Your task to perform on an android device: turn pop-ups on in chrome Image 0: 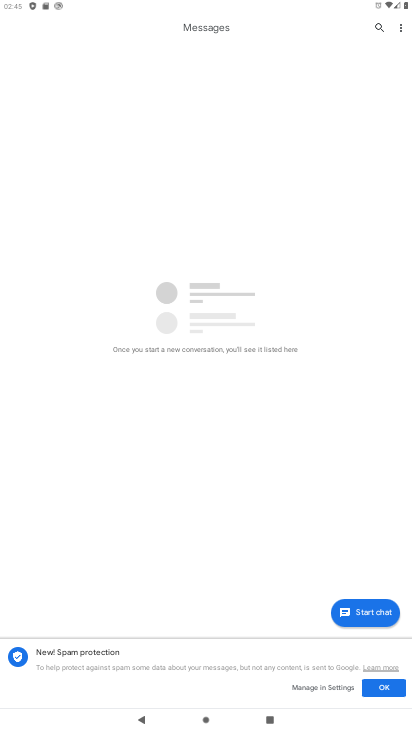
Step 0: press home button
Your task to perform on an android device: turn pop-ups on in chrome Image 1: 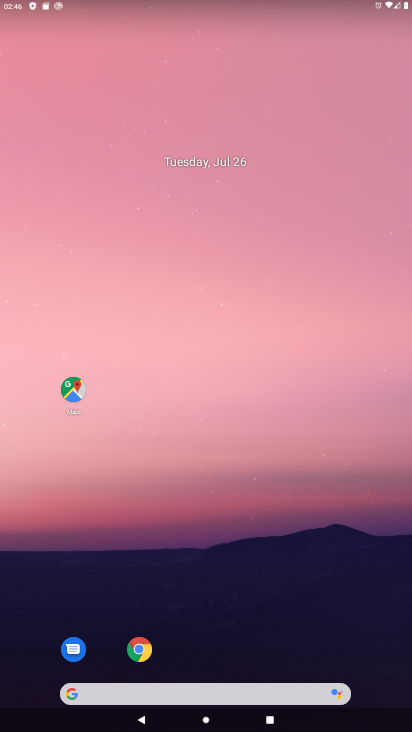
Step 1: click (139, 648)
Your task to perform on an android device: turn pop-ups on in chrome Image 2: 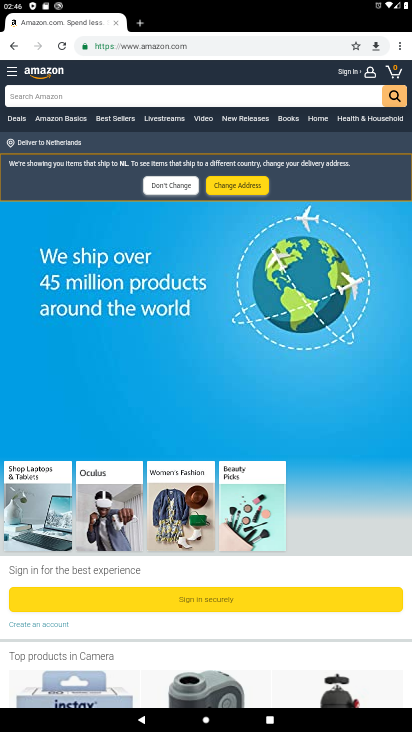
Step 2: click (401, 44)
Your task to perform on an android device: turn pop-ups on in chrome Image 3: 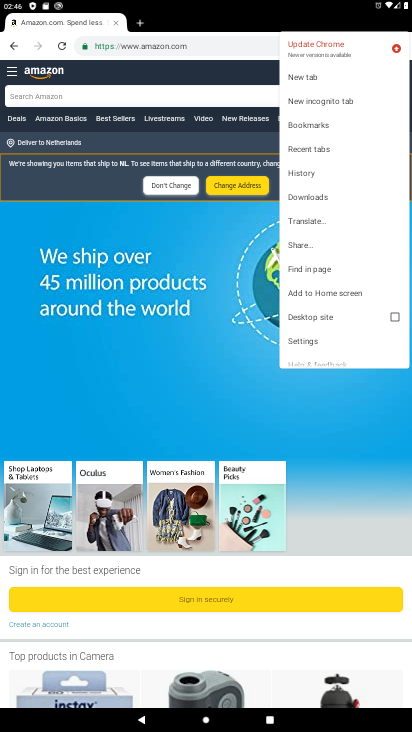
Step 3: click (304, 342)
Your task to perform on an android device: turn pop-ups on in chrome Image 4: 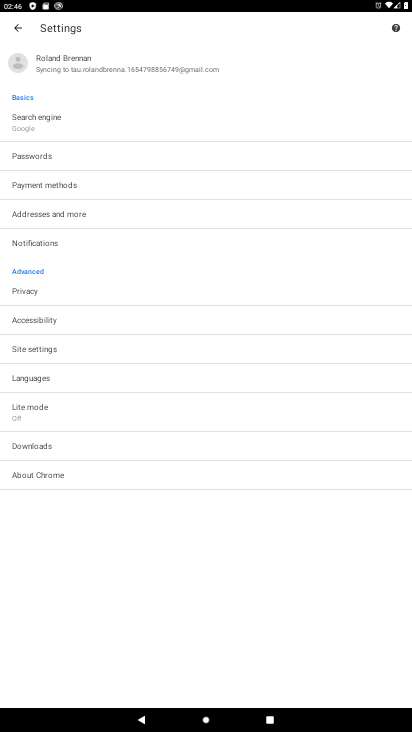
Step 4: click (44, 350)
Your task to perform on an android device: turn pop-ups on in chrome Image 5: 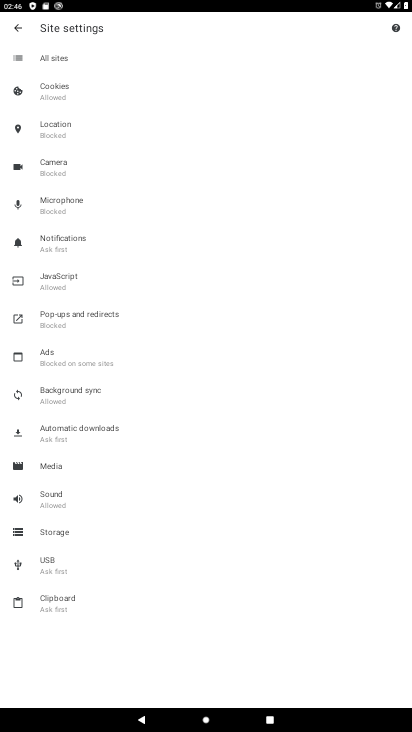
Step 5: click (95, 314)
Your task to perform on an android device: turn pop-ups on in chrome Image 6: 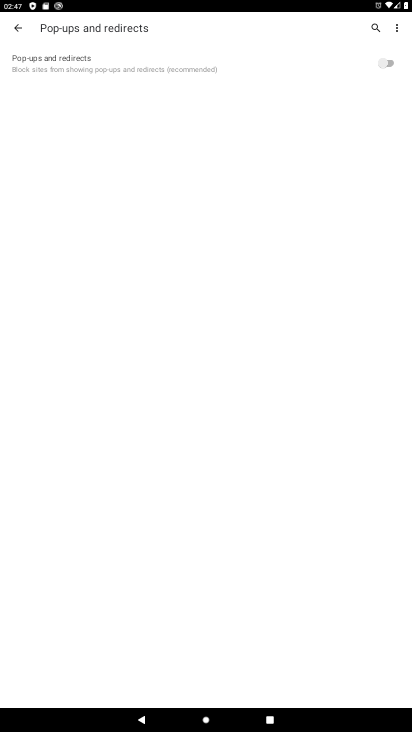
Step 6: click (385, 63)
Your task to perform on an android device: turn pop-ups on in chrome Image 7: 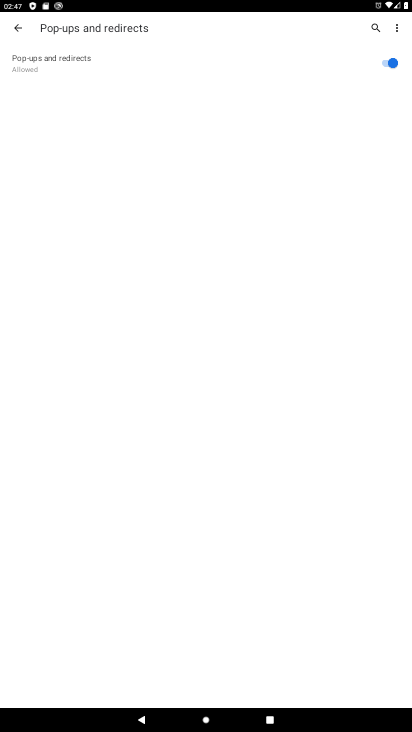
Step 7: task complete